Your task to perform on an android device: check battery use Image 0: 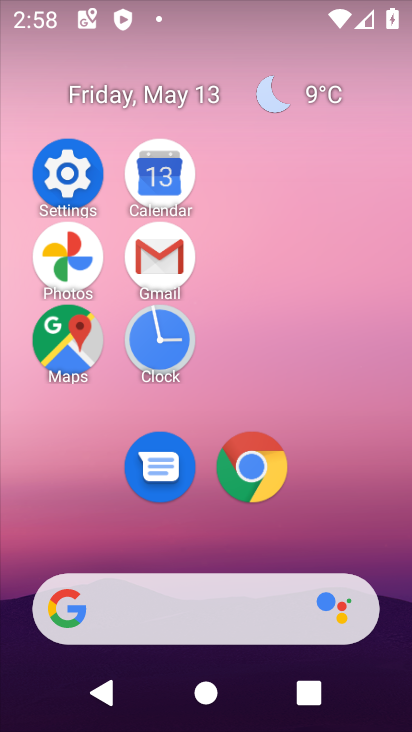
Step 0: click (72, 186)
Your task to perform on an android device: check battery use Image 1: 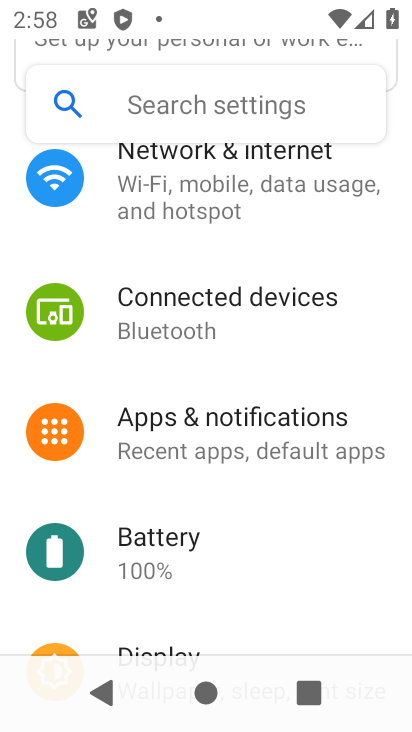
Step 1: drag from (289, 244) to (256, 253)
Your task to perform on an android device: check battery use Image 2: 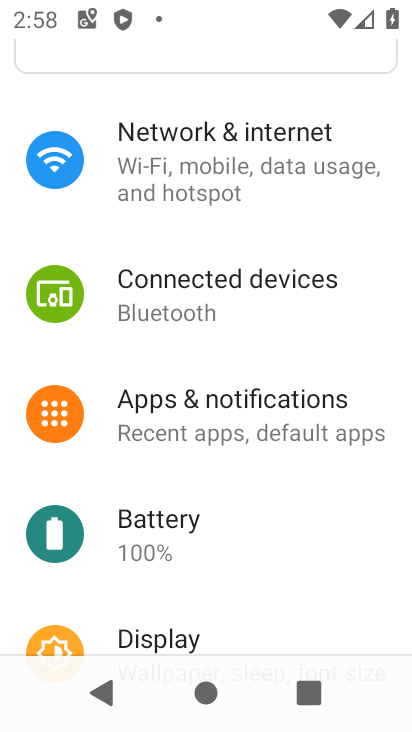
Step 2: drag from (259, 589) to (235, 227)
Your task to perform on an android device: check battery use Image 3: 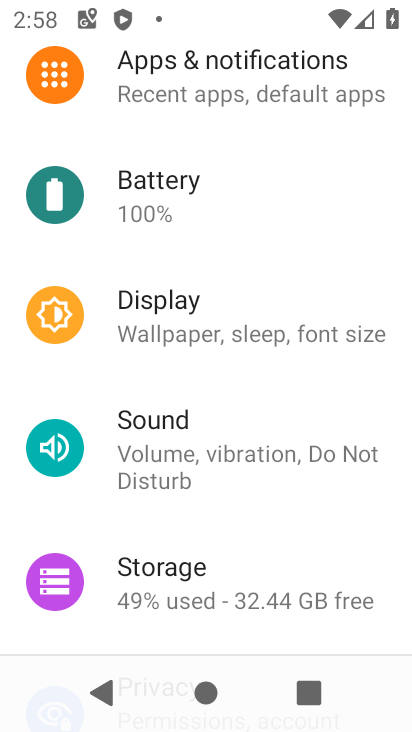
Step 3: drag from (278, 532) to (247, 158)
Your task to perform on an android device: check battery use Image 4: 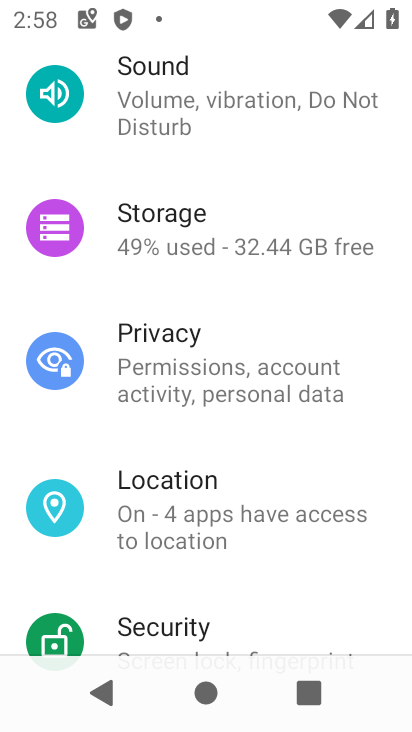
Step 4: drag from (282, 587) to (258, 183)
Your task to perform on an android device: check battery use Image 5: 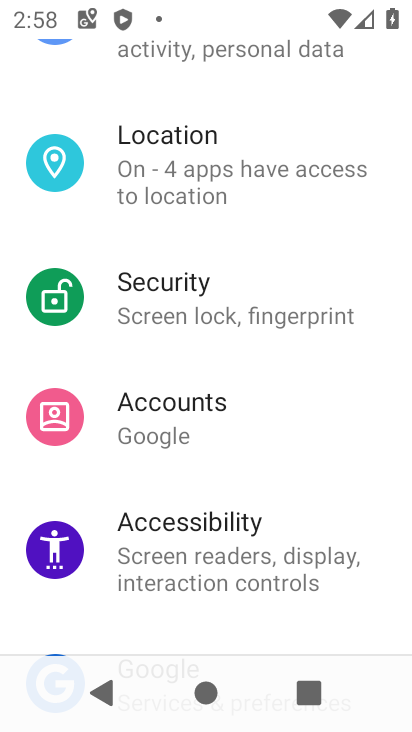
Step 5: drag from (273, 514) to (268, 628)
Your task to perform on an android device: check battery use Image 6: 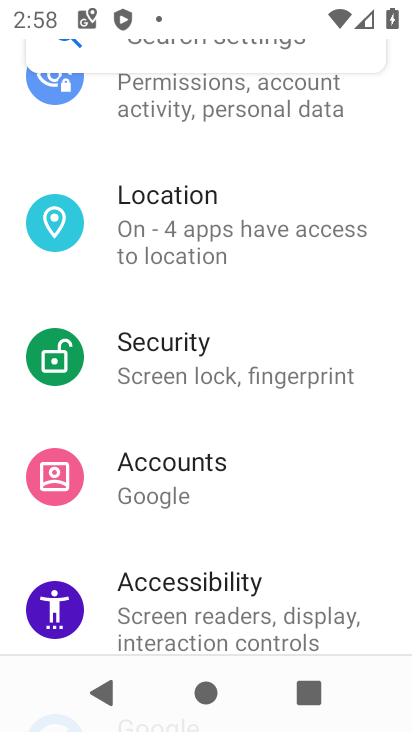
Step 6: drag from (321, 164) to (336, 542)
Your task to perform on an android device: check battery use Image 7: 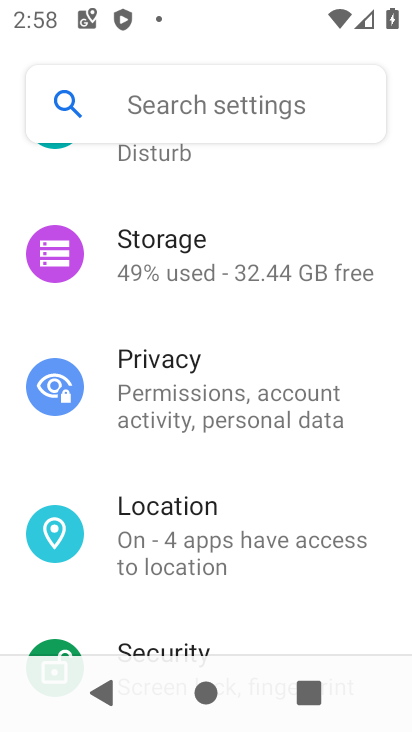
Step 7: drag from (293, 189) to (328, 636)
Your task to perform on an android device: check battery use Image 8: 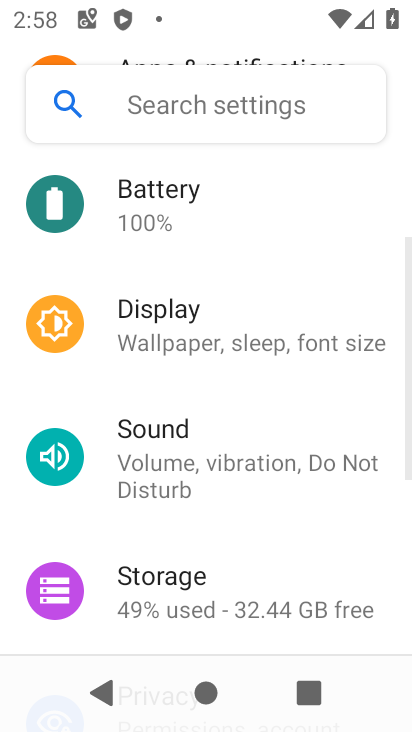
Step 8: click (249, 229)
Your task to perform on an android device: check battery use Image 9: 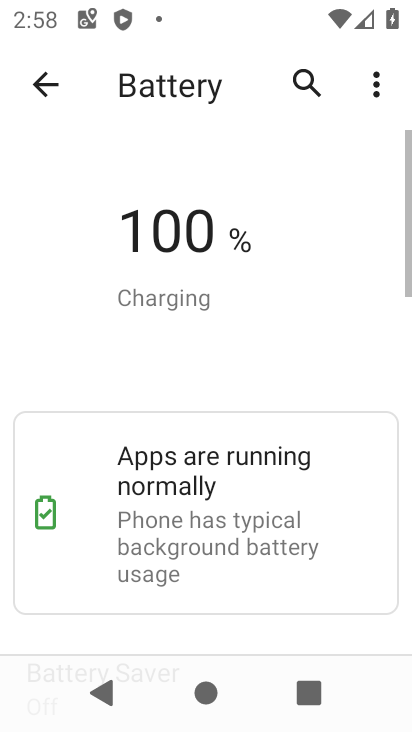
Step 9: click (378, 72)
Your task to perform on an android device: check battery use Image 10: 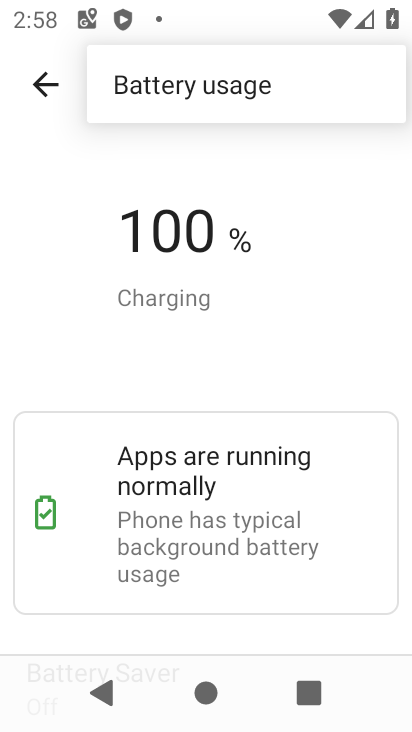
Step 10: click (296, 115)
Your task to perform on an android device: check battery use Image 11: 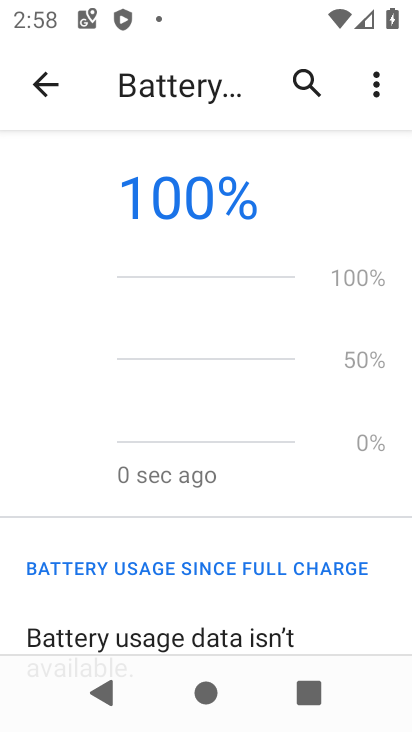
Step 11: task complete